Your task to perform on an android device: See recent photos Image 0: 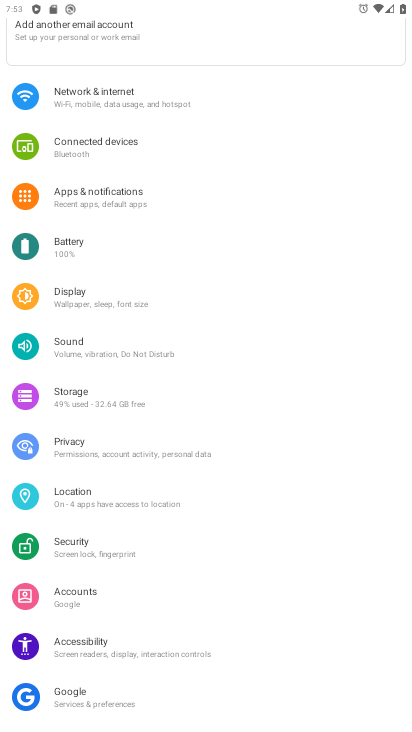
Step 0: press home button
Your task to perform on an android device: See recent photos Image 1: 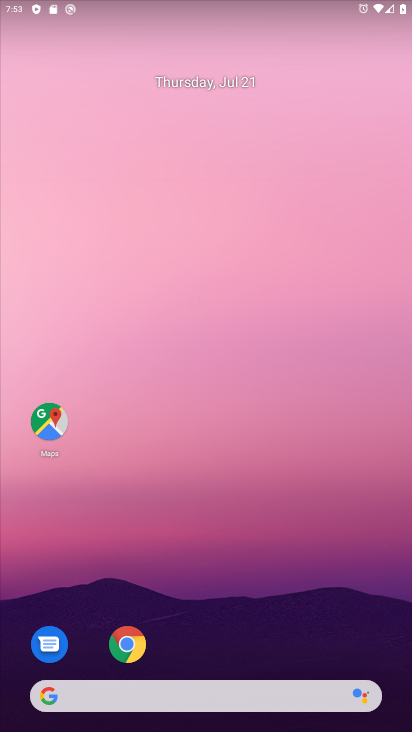
Step 1: drag from (346, 568) to (372, 119)
Your task to perform on an android device: See recent photos Image 2: 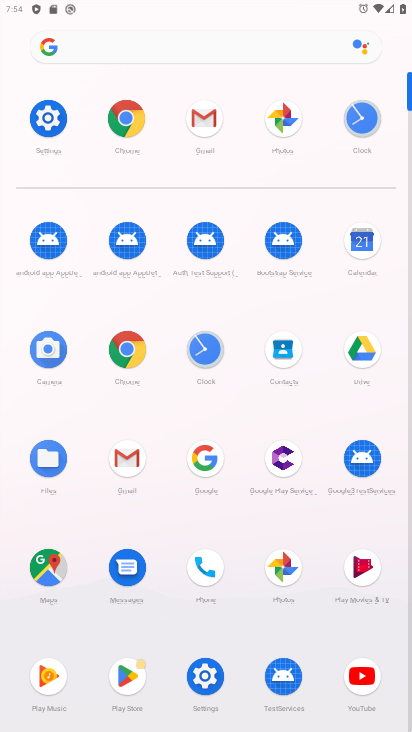
Step 2: click (284, 565)
Your task to perform on an android device: See recent photos Image 3: 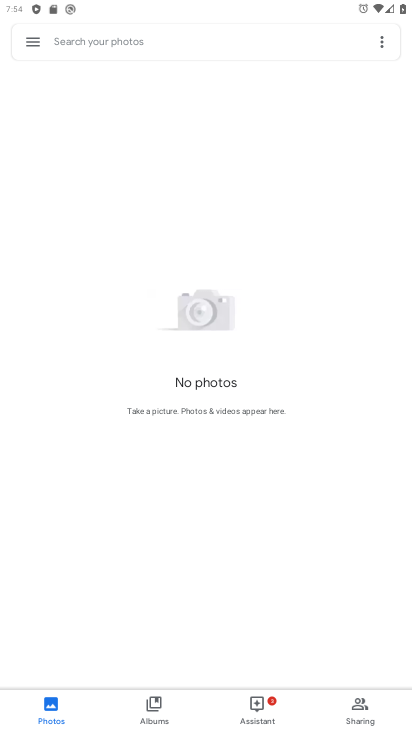
Step 3: task complete